Your task to perform on an android device: Show me the alarms in the clock app Image 0: 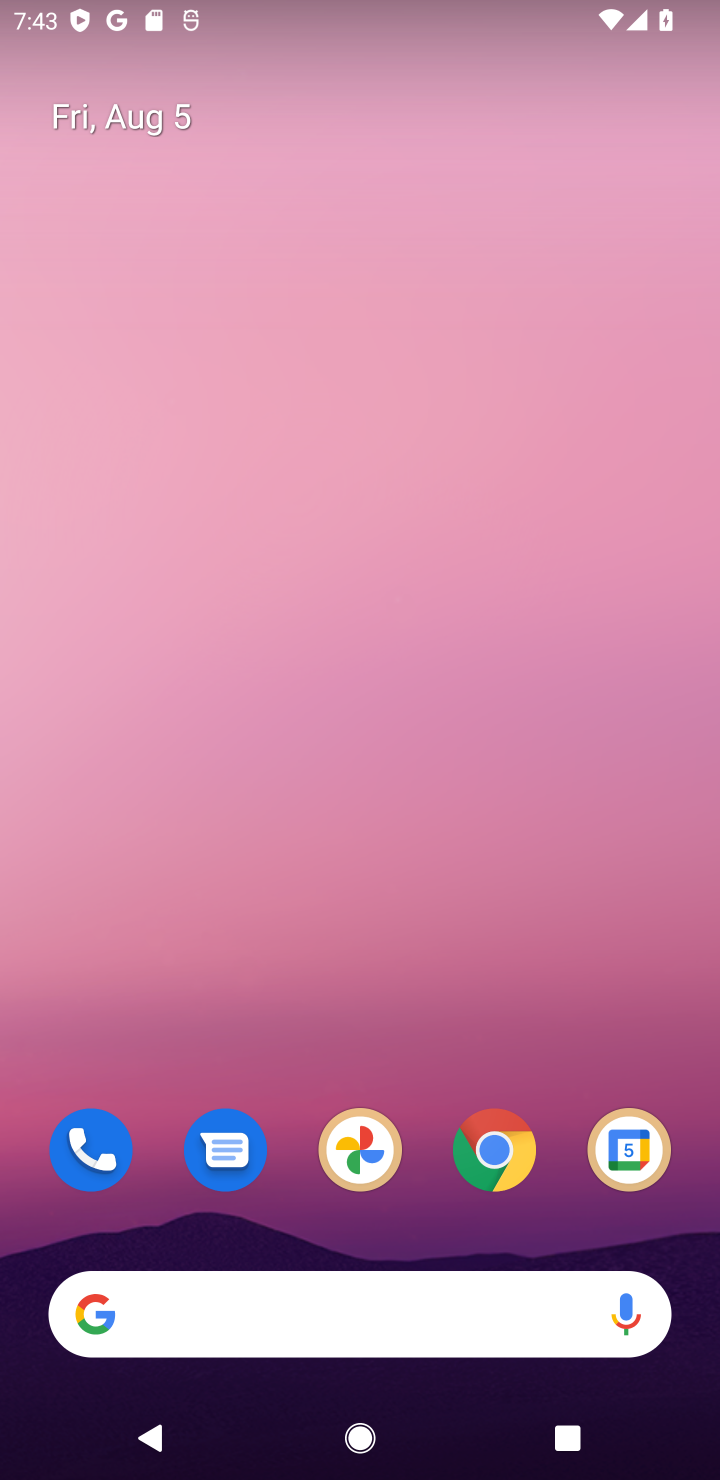
Step 0: press home button
Your task to perform on an android device: Show me the alarms in the clock app Image 1: 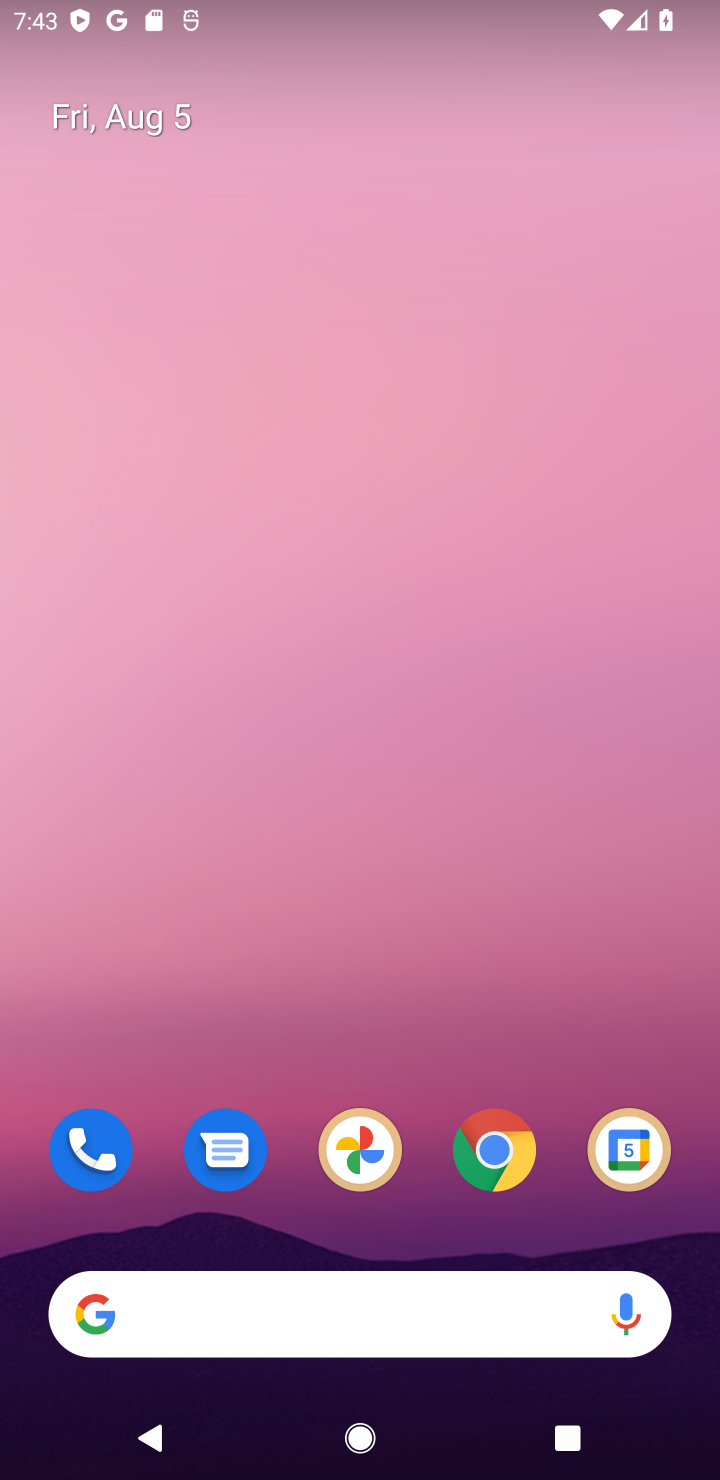
Step 1: drag from (421, 953) to (436, 404)
Your task to perform on an android device: Show me the alarms in the clock app Image 2: 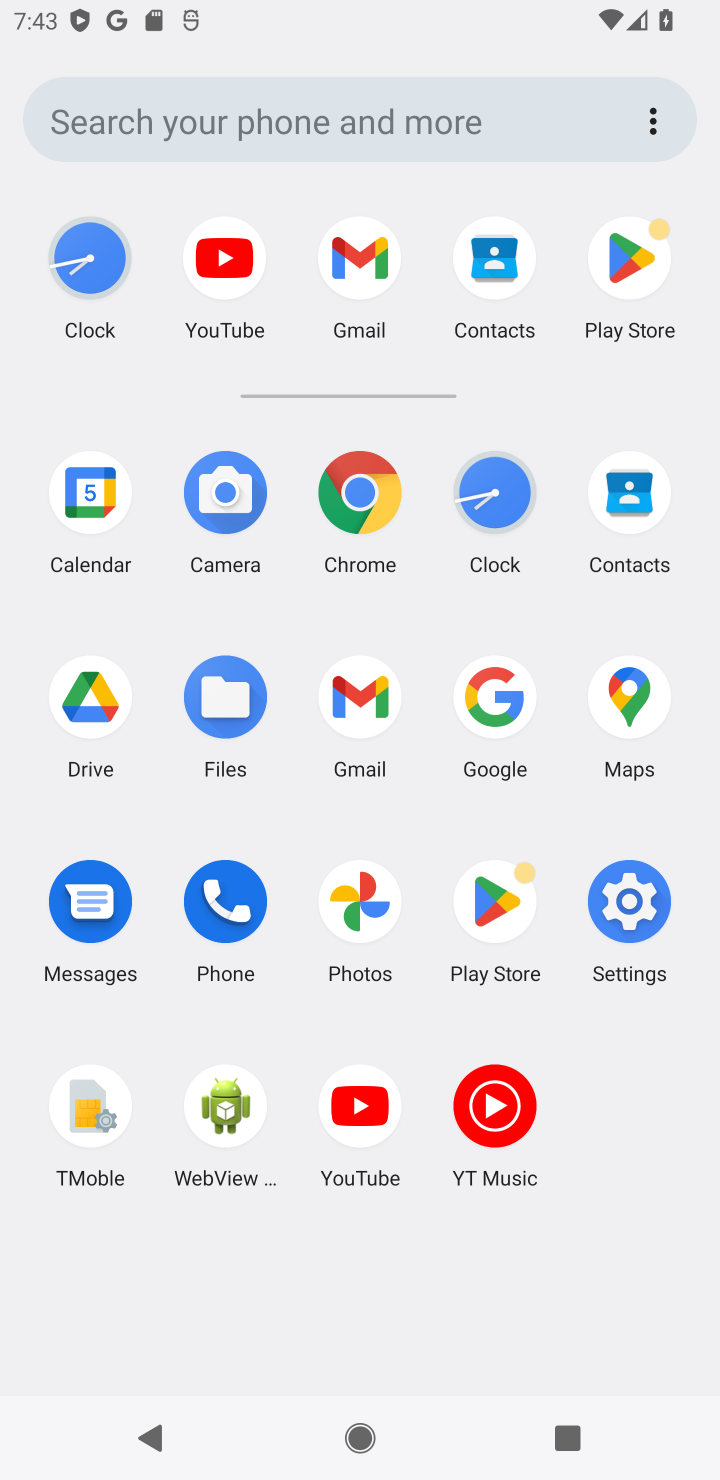
Step 2: click (496, 493)
Your task to perform on an android device: Show me the alarms in the clock app Image 3: 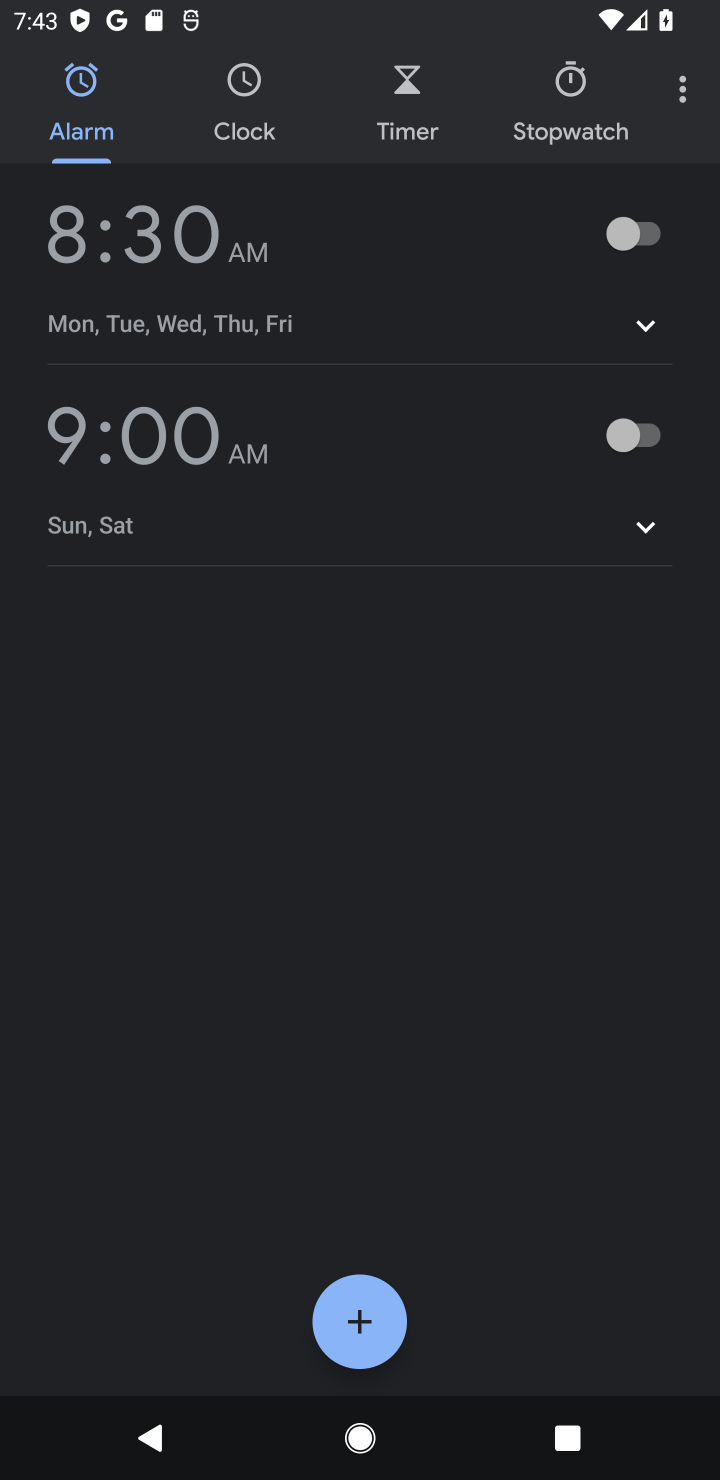
Step 3: task complete